Your task to perform on an android device: Search for Italian restaurants on Maps Image 0: 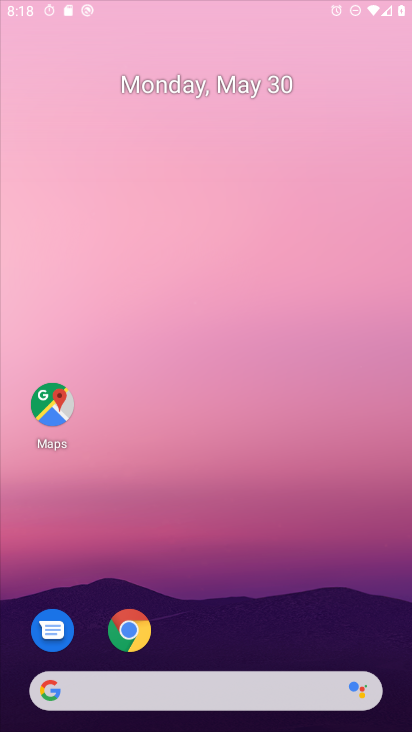
Step 0: click (272, 5)
Your task to perform on an android device: Search for Italian restaurants on Maps Image 1: 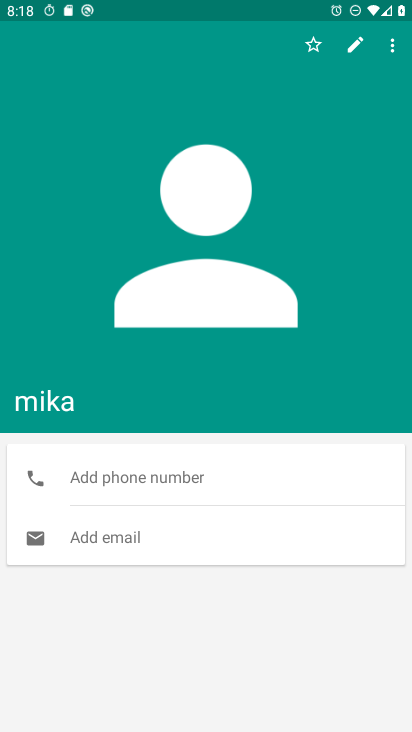
Step 1: press home button
Your task to perform on an android device: Search for Italian restaurants on Maps Image 2: 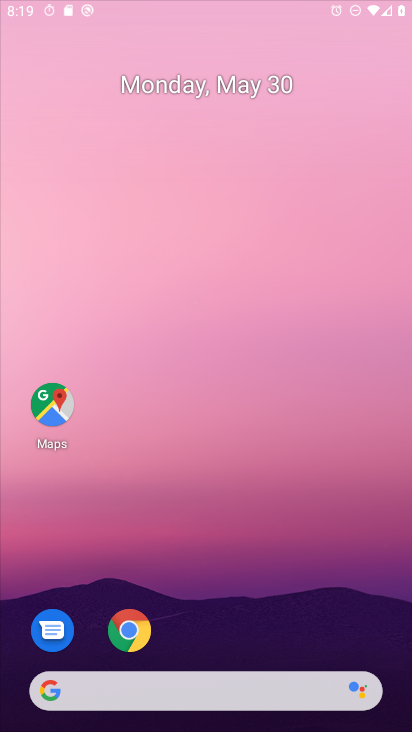
Step 2: drag from (329, 602) to (233, 2)
Your task to perform on an android device: Search for Italian restaurants on Maps Image 3: 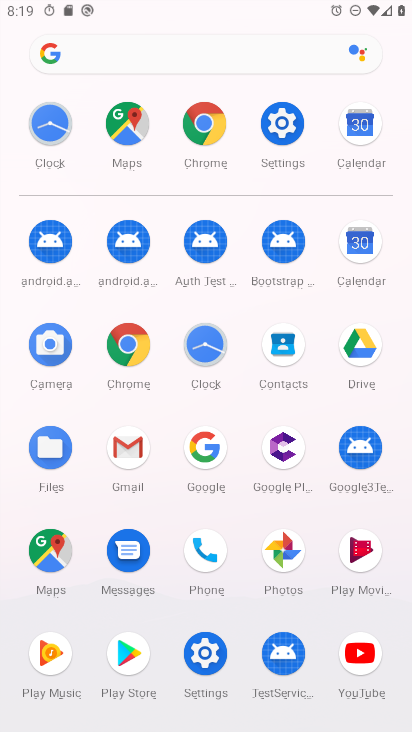
Step 3: click (68, 559)
Your task to perform on an android device: Search for Italian restaurants on Maps Image 4: 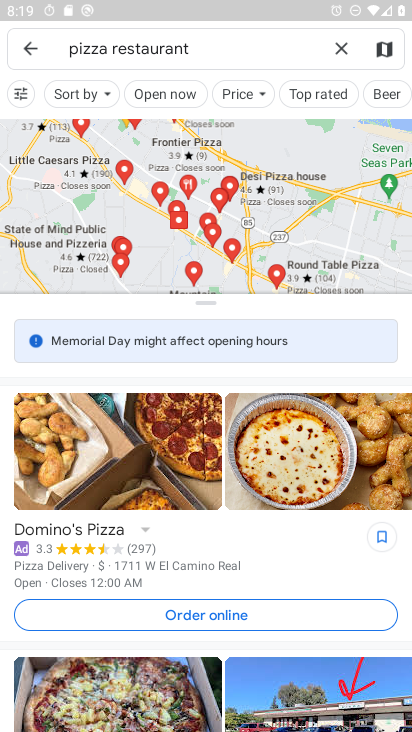
Step 4: click (335, 49)
Your task to perform on an android device: Search for Italian restaurants on Maps Image 5: 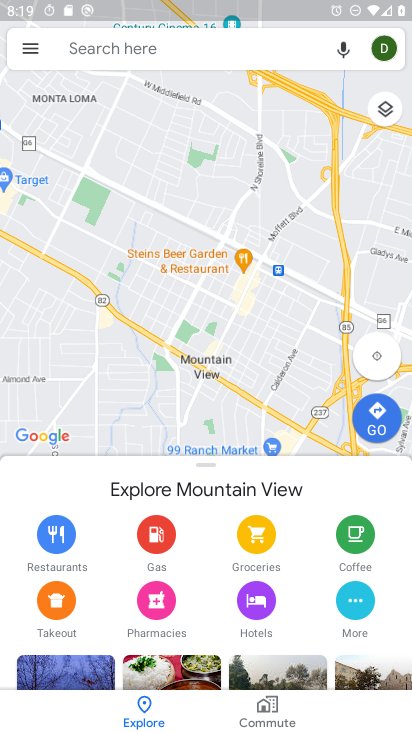
Step 5: click (132, 57)
Your task to perform on an android device: Search for Italian restaurants on Maps Image 6: 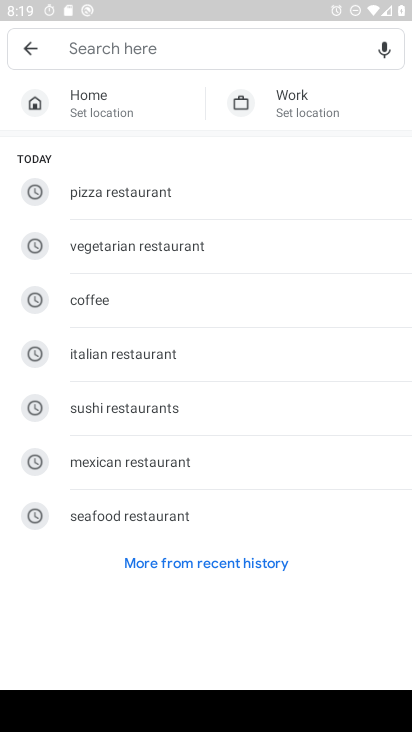
Step 6: click (154, 356)
Your task to perform on an android device: Search for Italian restaurants on Maps Image 7: 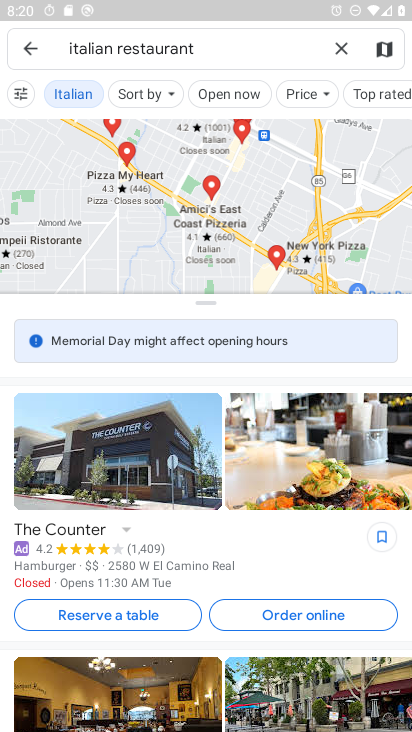
Step 7: task complete